Your task to perform on an android device: Go to internet settings Image 0: 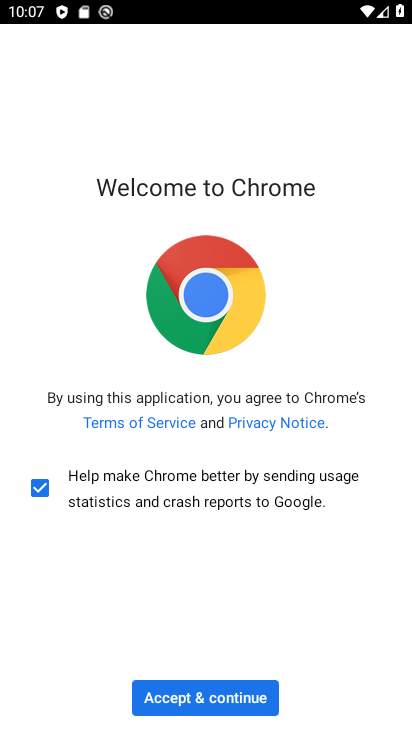
Step 0: press home button
Your task to perform on an android device: Go to internet settings Image 1: 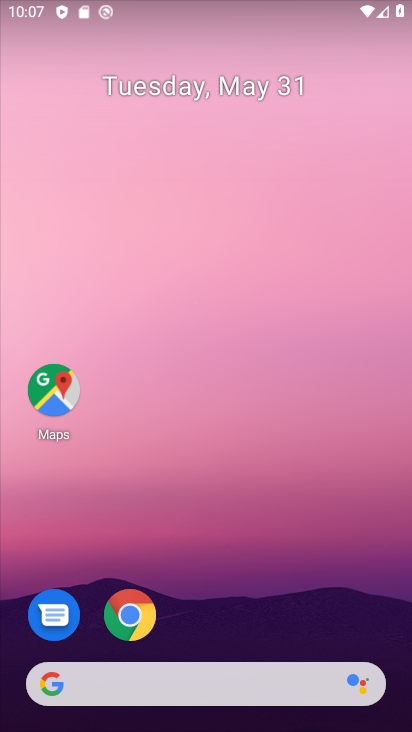
Step 1: drag from (278, 611) to (335, 110)
Your task to perform on an android device: Go to internet settings Image 2: 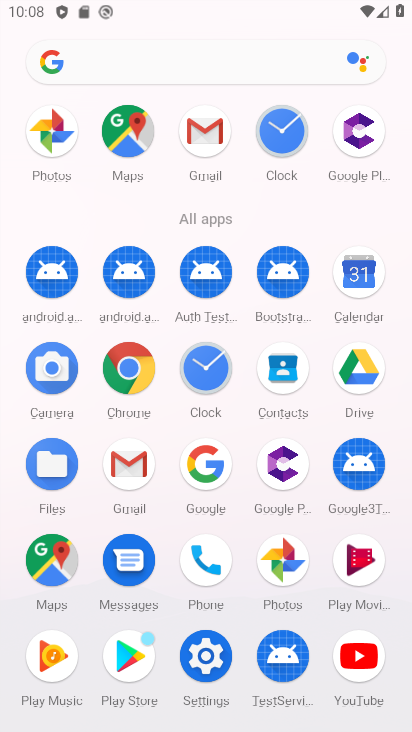
Step 2: click (224, 653)
Your task to perform on an android device: Go to internet settings Image 3: 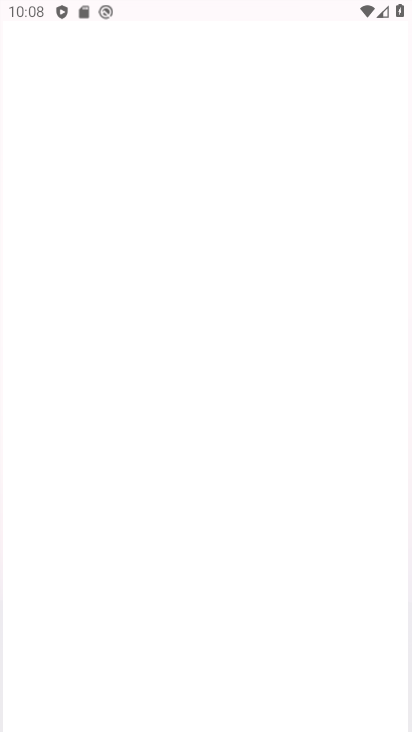
Step 3: task complete